Your task to perform on an android device: change text size in settings app Image 0: 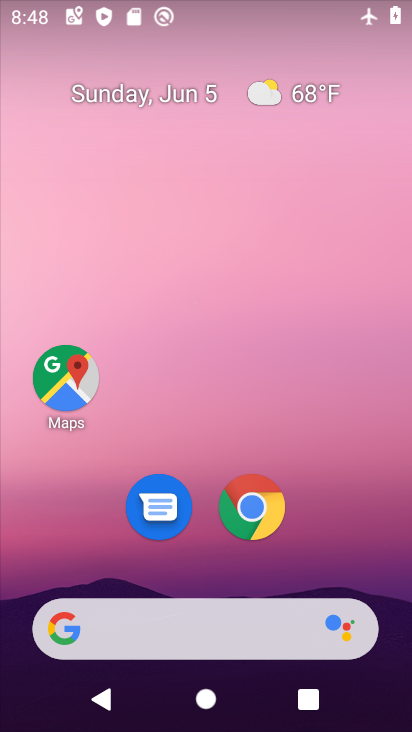
Step 0: drag from (213, 592) to (272, 17)
Your task to perform on an android device: change text size in settings app Image 1: 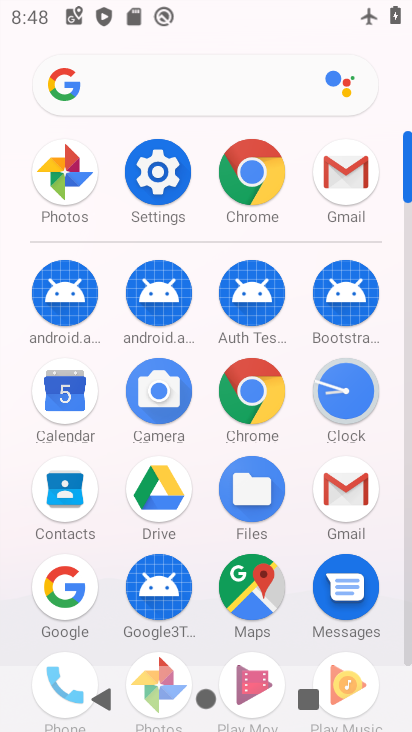
Step 1: click (166, 173)
Your task to perform on an android device: change text size in settings app Image 2: 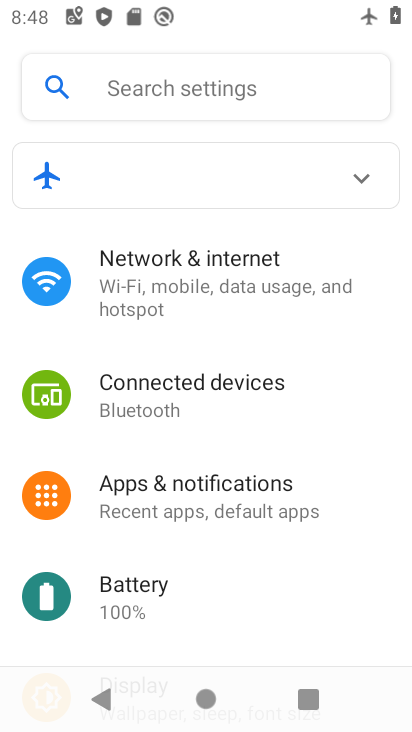
Step 2: drag from (178, 606) to (224, 233)
Your task to perform on an android device: change text size in settings app Image 3: 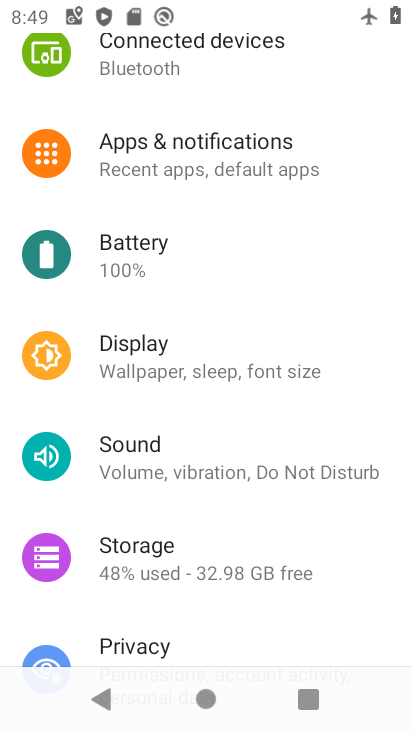
Step 3: drag from (159, 608) to (167, 642)
Your task to perform on an android device: change text size in settings app Image 4: 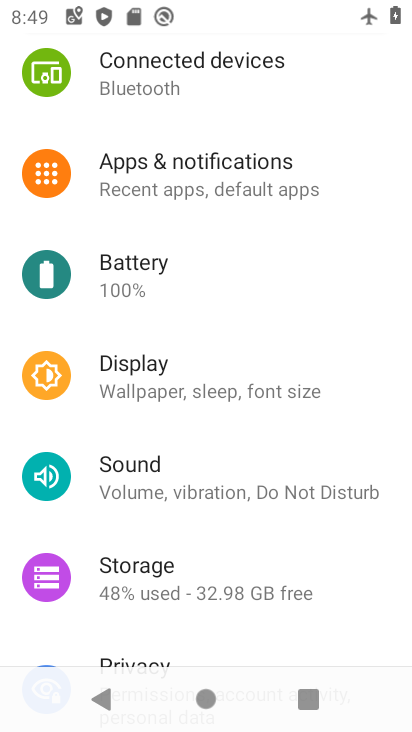
Step 4: click (156, 373)
Your task to perform on an android device: change text size in settings app Image 5: 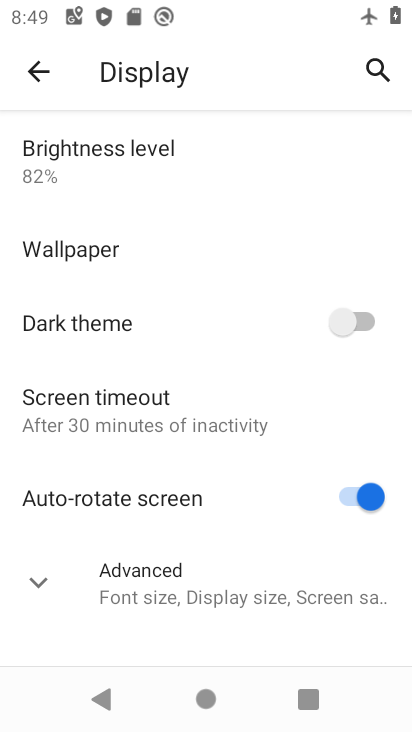
Step 5: click (131, 576)
Your task to perform on an android device: change text size in settings app Image 6: 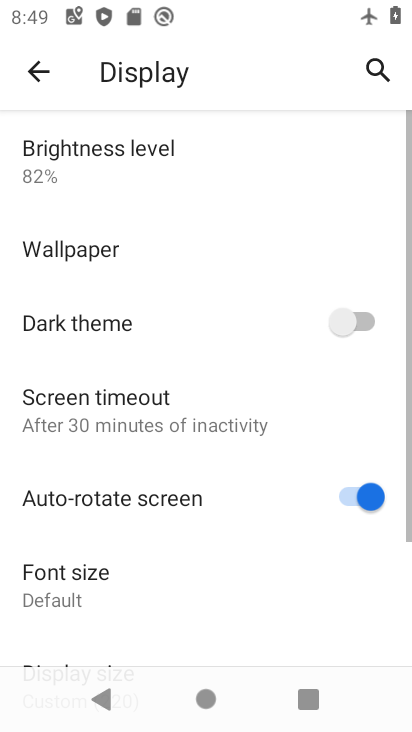
Step 6: drag from (126, 606) to (143, 405)
Your task to perform on an android device: change text size in settings app Image 7: 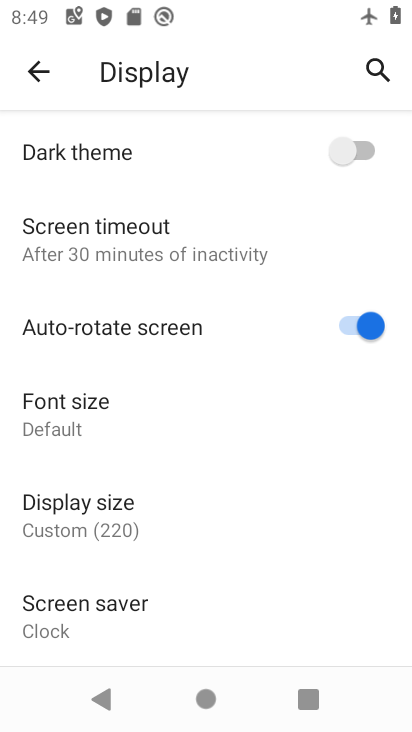
Step 7: click (43, 412)
Your task to perform on an android device: change text size in settings app Image 8: 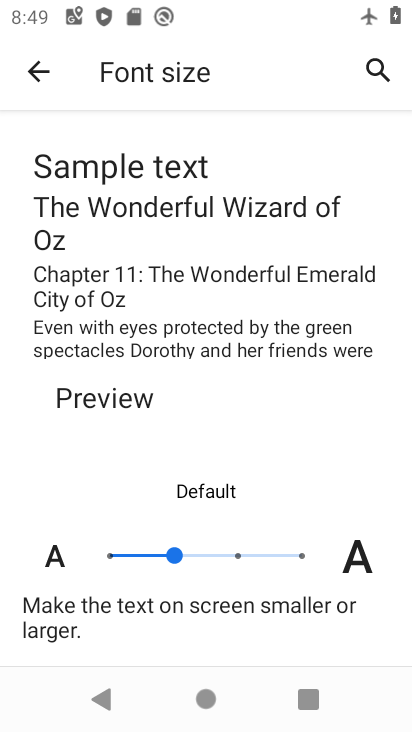
Step 8: click (112, 553)
Your task to perform on an android device: change text size in settings app Image 9: 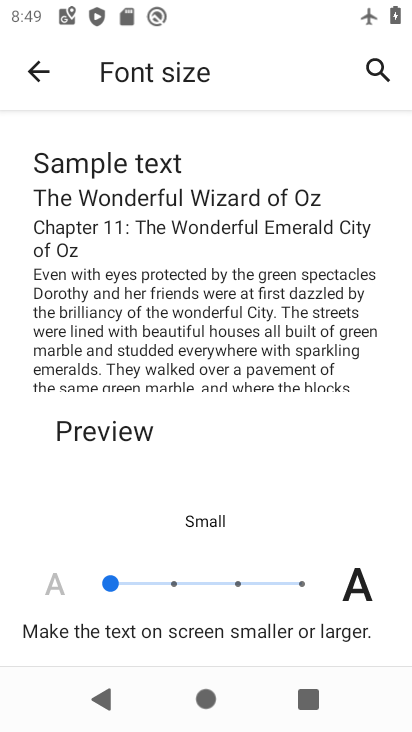
Step 9: task complete